Your task to perform on an android device: turn off priority inbox in the gmail app Image 0: 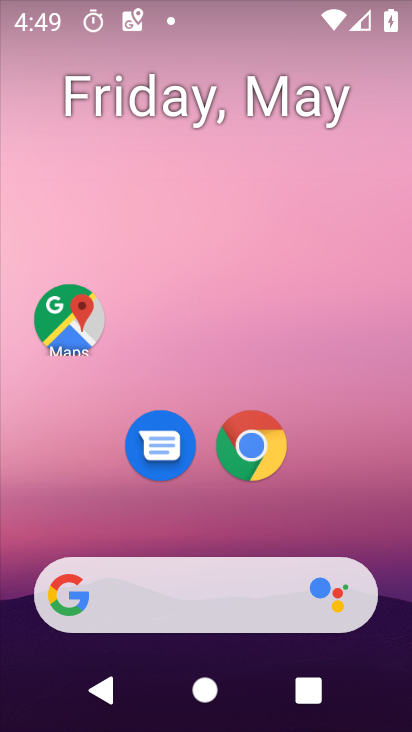
Step 0: drag from (349, 487) to (305, 97)
Your task to perform on an android device: turn off priority inbox in the gmail app Image 1: 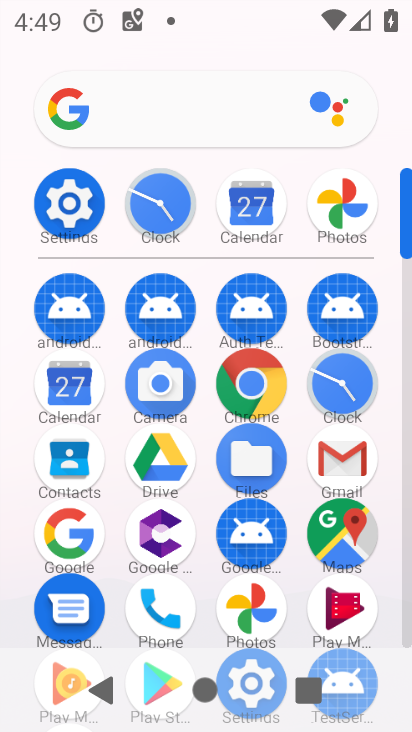
Step 1: click (362, 457)
Your task to perform on an android device: turn off priority inbox in the gmail app Image 2: 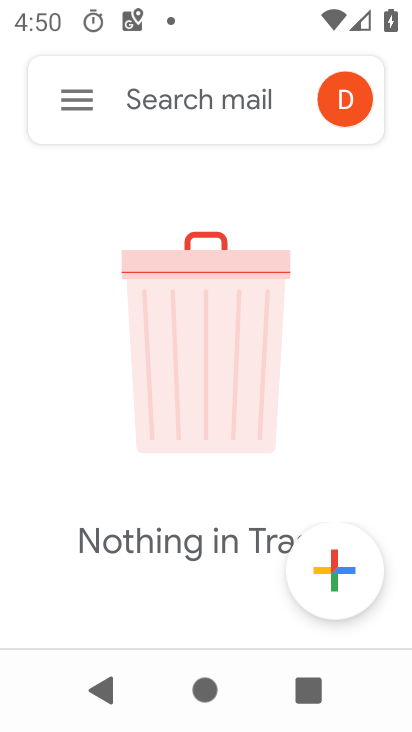
Step 2: click (70, 91)
Your task to perform on an android device: turn off priority inbox in the gmail app Image 3: 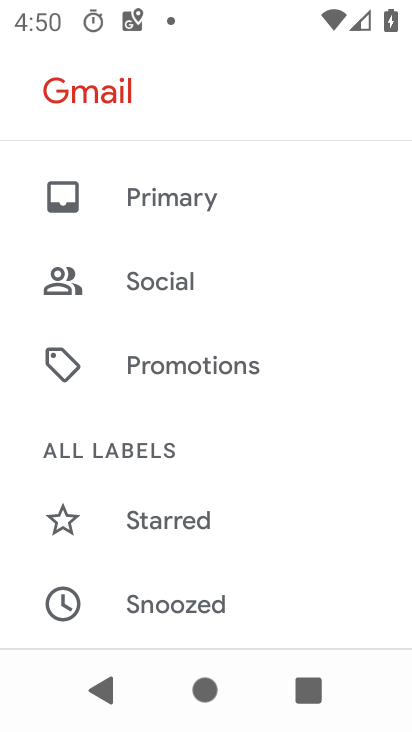
Step 3: drag from (357, 577) to (319, 98)
Your task to perform on an android device: turn off priority inbox in the gmail app Image 4: 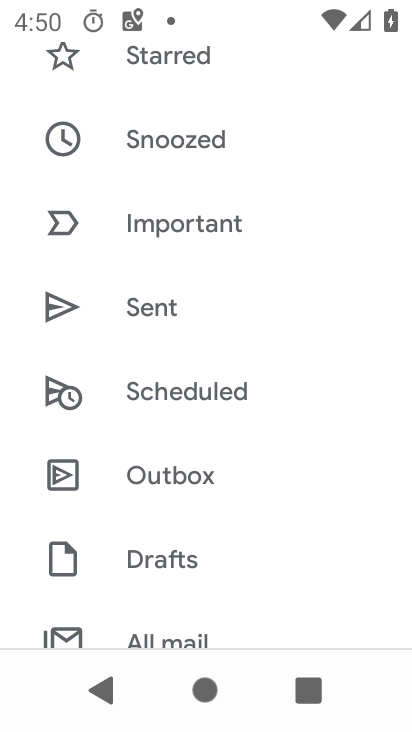
Step 4: drag from (316, 588) to (293, 43)
Your task to perform on an android device: turn off priority inbox in the gmail app Image 5: 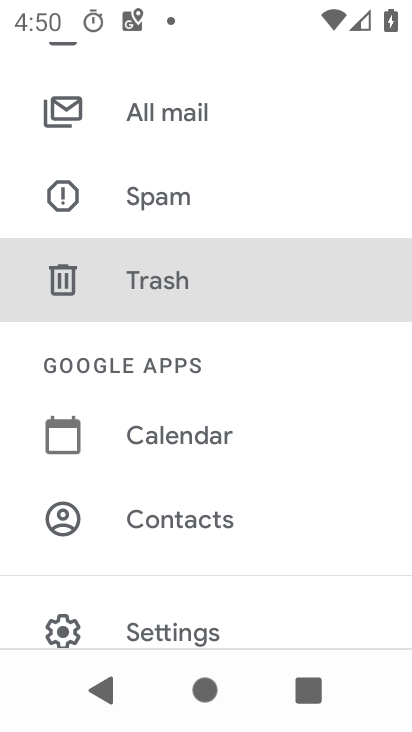
Step 5: click (277, 629)
Your task to perform on an android device: turn off priority inbox in the gmail app Image 6: 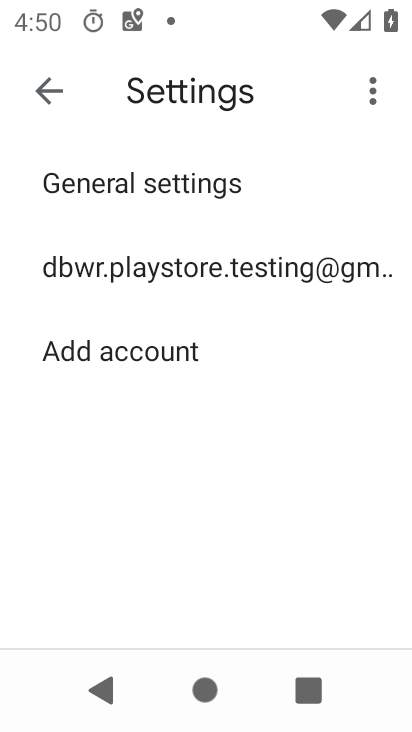
Step 6: click (121, 263)
Your task to perform on an android device: turn off priority inbox in the gmail app Image 7: 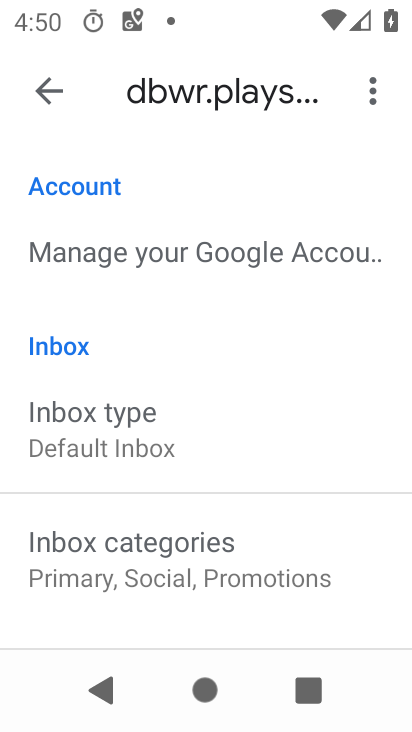
Step 7: click (141, 444)
Your task to perform on an android device: turn off priority inbox in the gmail app Image 8: 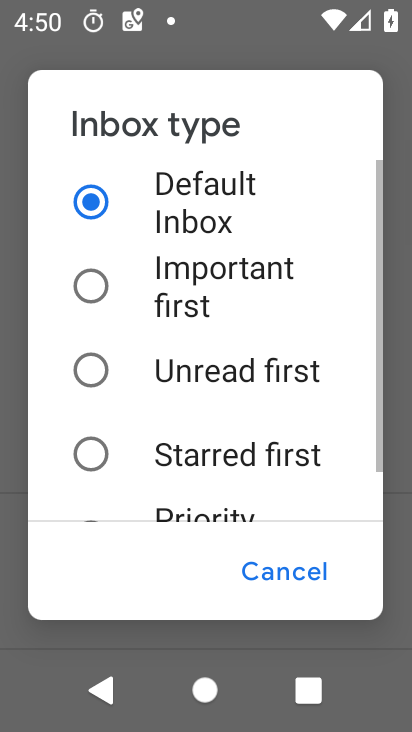
Step 8: task complete